Your task to perform on an android device: Open display settings Image 0: 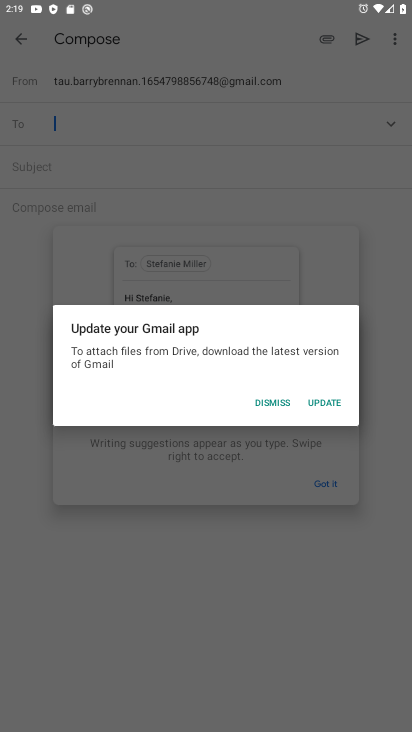
Step 0: press home button
Your task to perform on an android device: Open display settings Image 1: 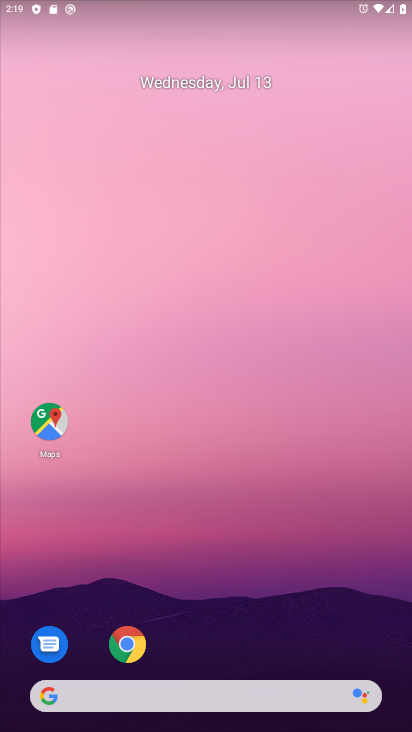
Step 1: drag from (281, 724) to (245, 134)
Your task to perform on an android device: Open display settings Image 2: 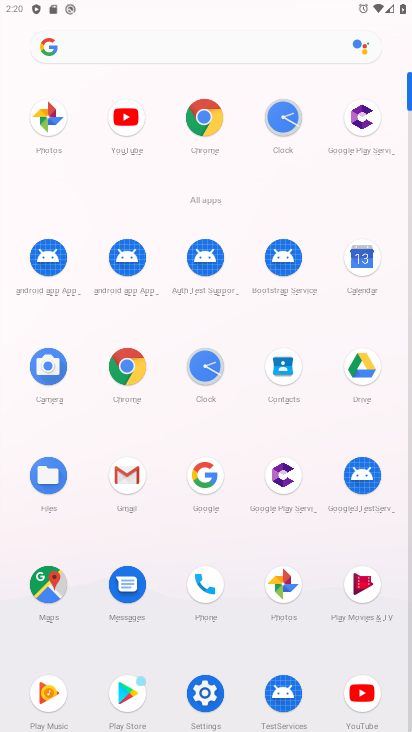
Step 2: click (205, 686)
Your task to perform on an android device: Open display settings Image 3: 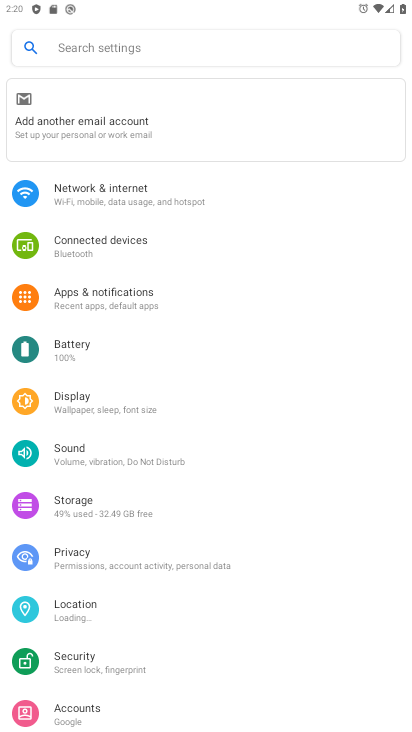
Step 3: click (100, 410)
Your task to perform on an android device: Open display settings Image 4: 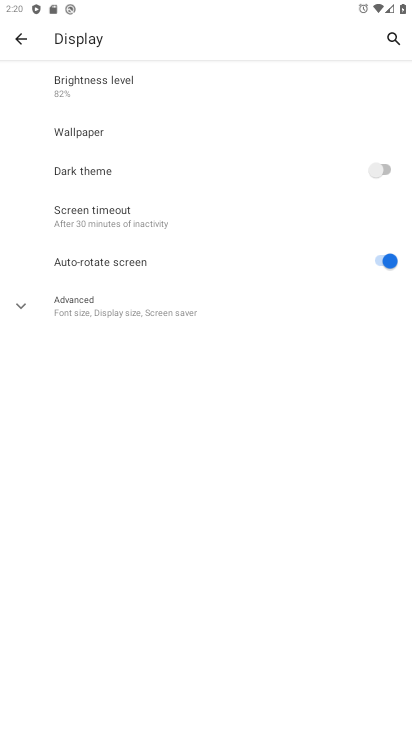
Step 4: task complete